Your task to perform on an android device: open app "Mercado Libre" Image 0: 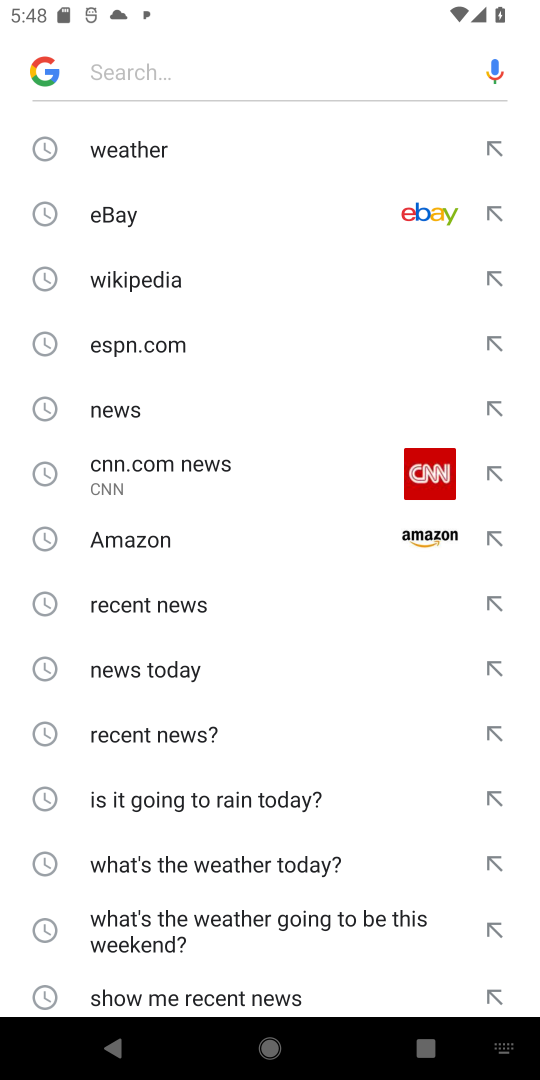
Step 0: press home button
Your task to perform on an android device: open app "Mercado Libre" Image 1: 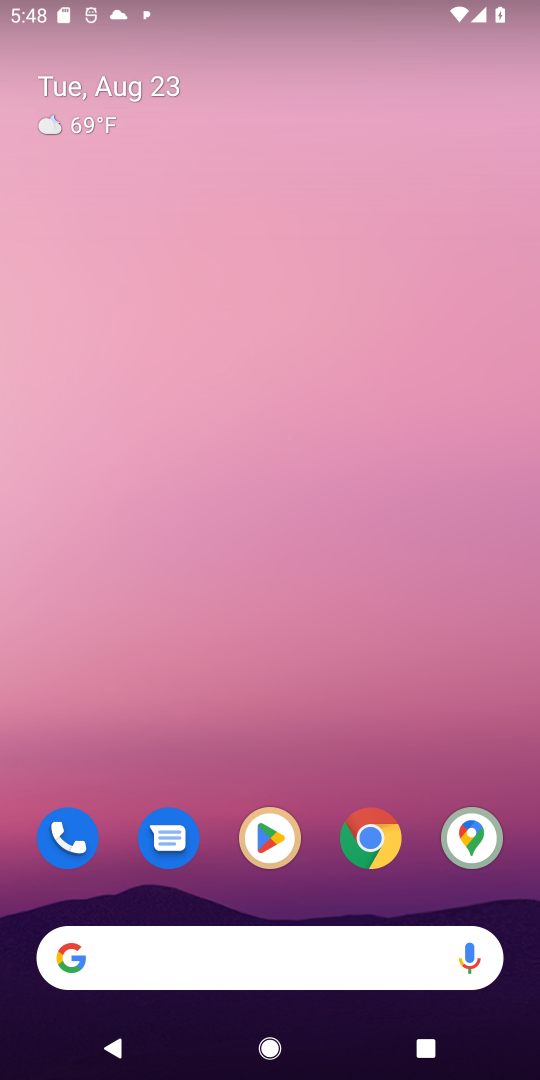
Step 1: drag from (247, 773) to (239, 11)
Your task to perform on an android device: open app "Mercado Libre" Image 2: 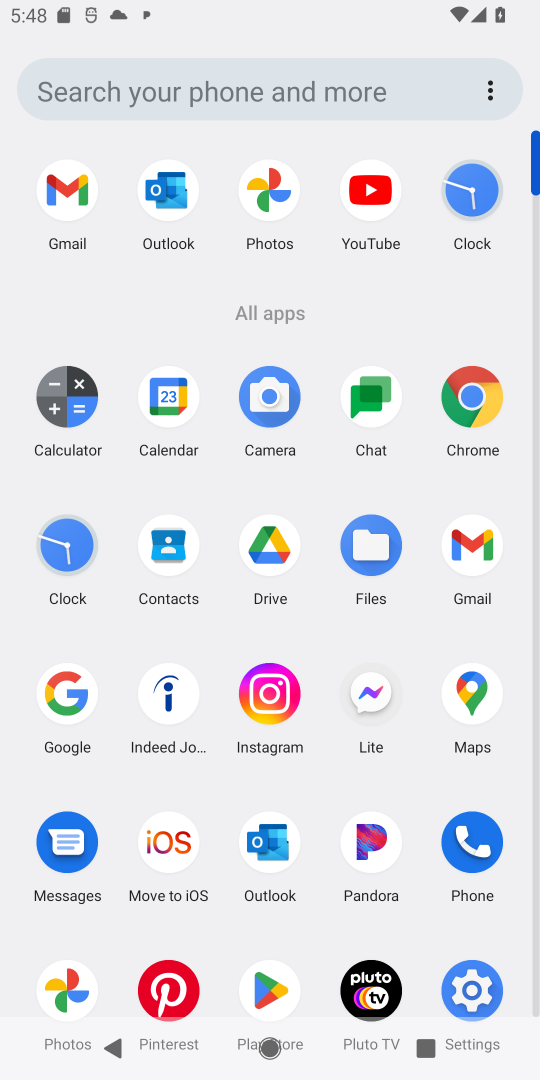
Step 2: click (267, 979)
Your task to perform on an android device: open app "Mercado Libre" Image 3: 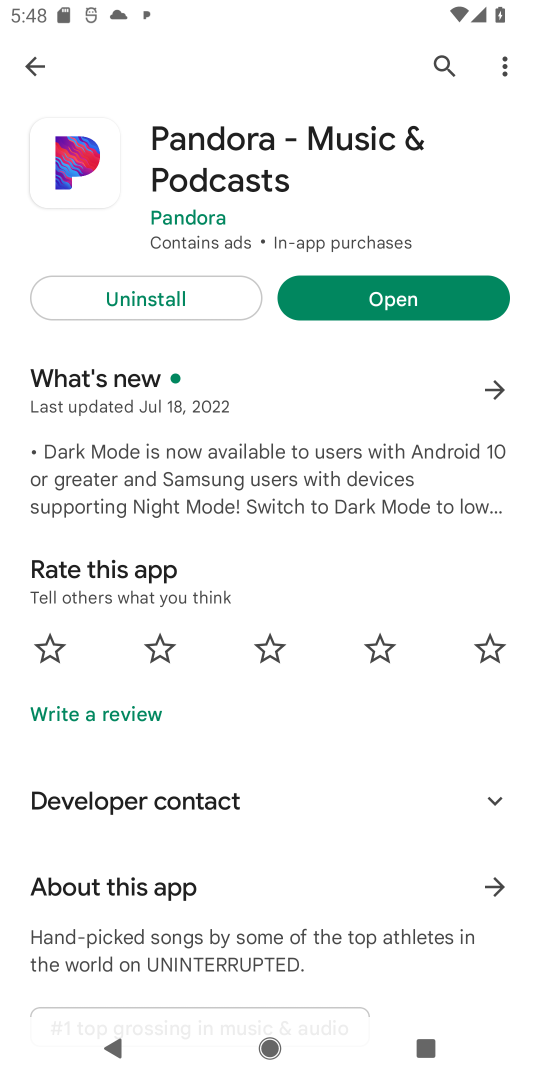
Step 3: click (443, 55)
Your task to perform on an android device: open app "Mercado Libre" Image 4: 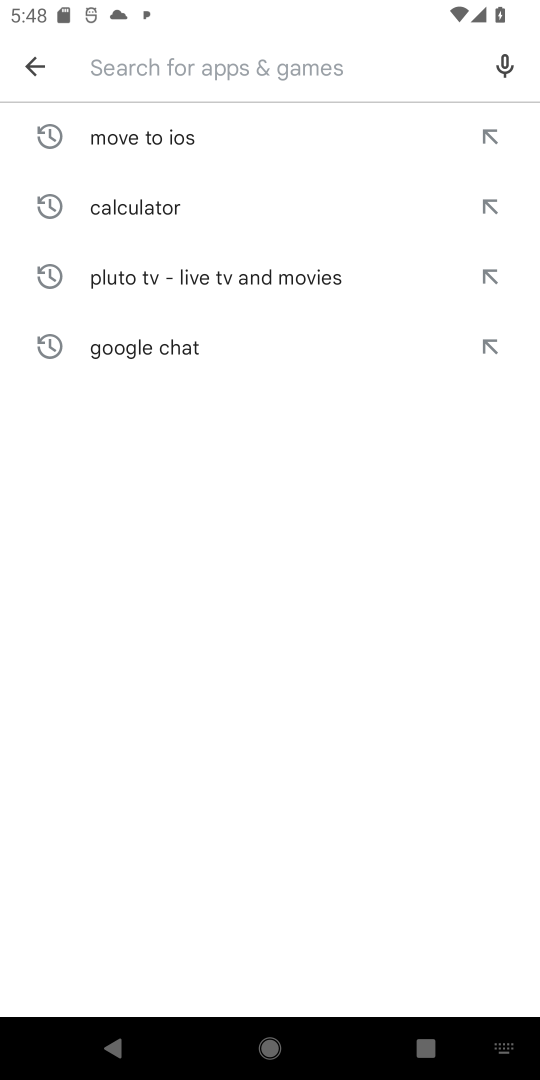
Step 4: type "Mercado Libre"
Your task to perform on an android device: open app "Mercado Libre" Image 5: 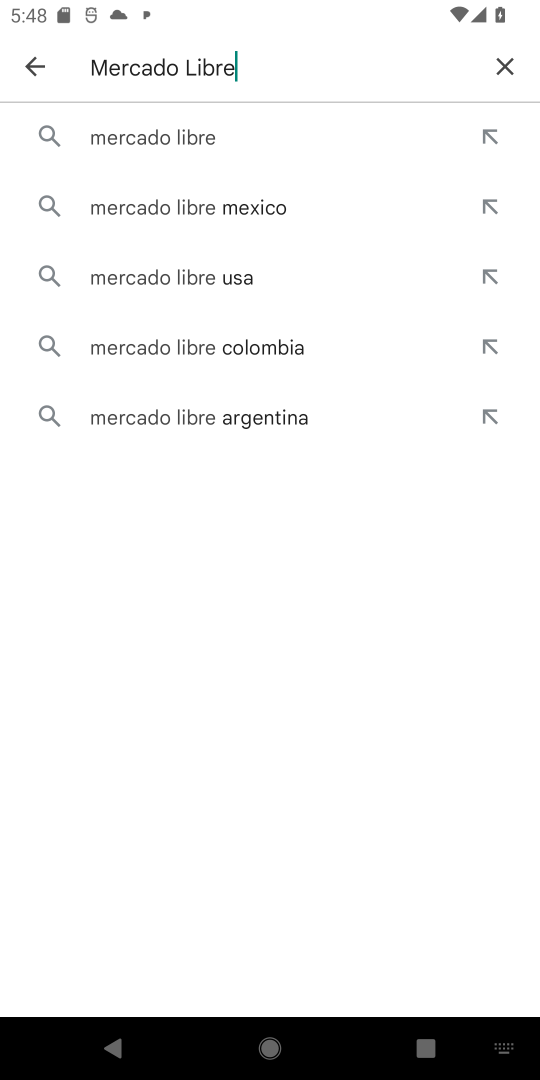
Step 5: click (168, 135)
Your task to perform on an android device: open app "Mercado Libre" Image 6: 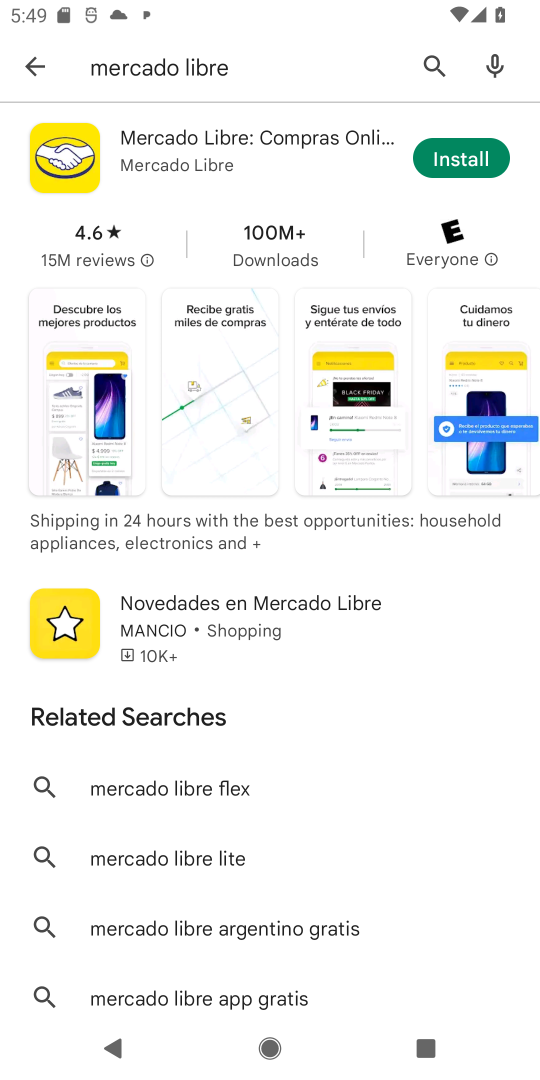
Step 6: task complete